Your task to perform on an android device: Open Chrome and go to settings Image 0: 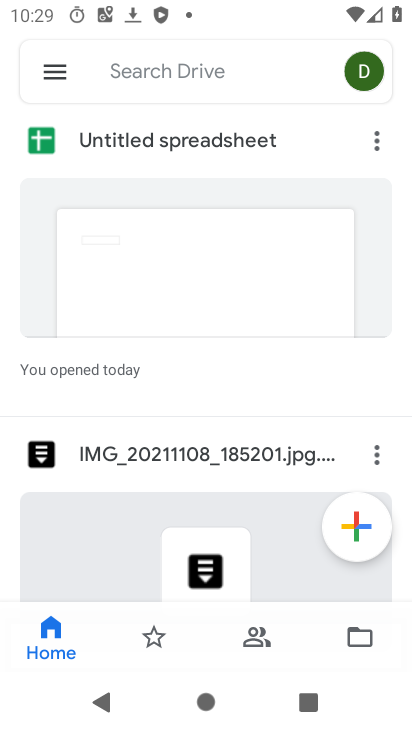
Step 0: press home button
Your task to perform on an android device: Open Chrome and go to settings Image 1: 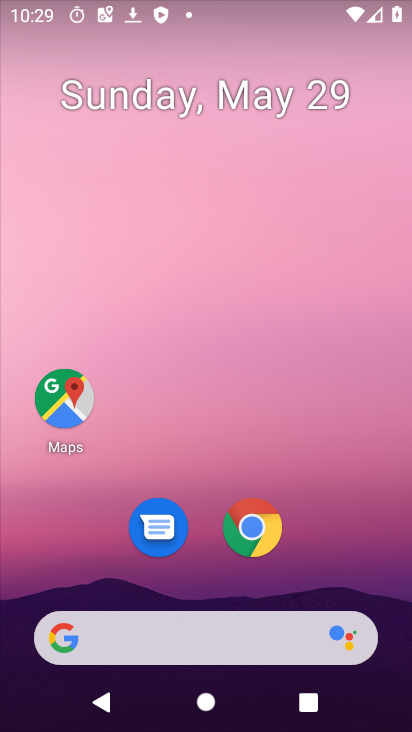
Step 1: drag from (358, 534) to (347, 131)
Your task to perform on an android device: Open Chrome and go to settings Image 2: 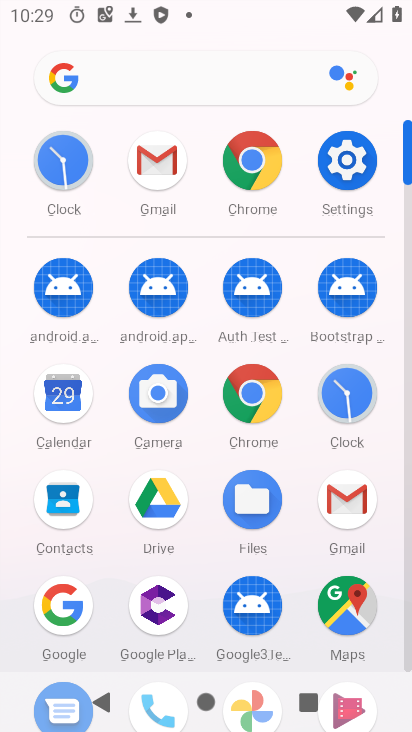
Step 2: click (253, 393)
Your task to perform on an android device: Open Chrome and go to settings Image 3: 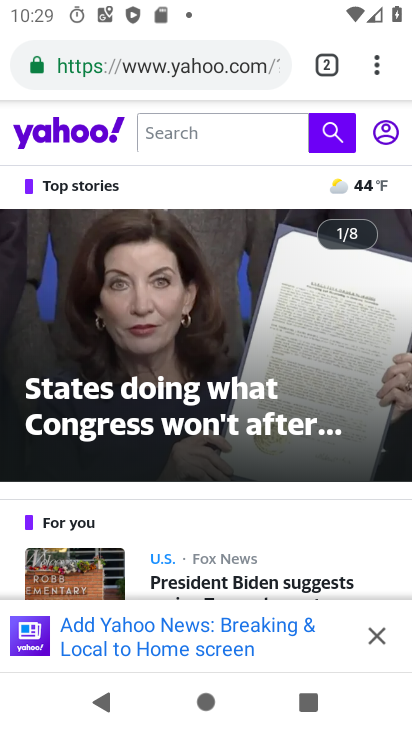
Step 3: task complete